Your task to perform on an android device: Show me productivity apps on the Play Store Image 0: 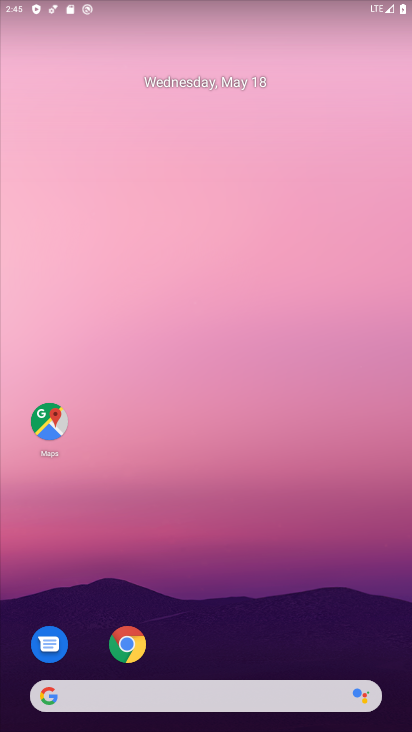
Step 0: drag from (153, 670) to (265, 225)
Your task to perform on an android device: Show me productivity apps on the Play Store Image 1: 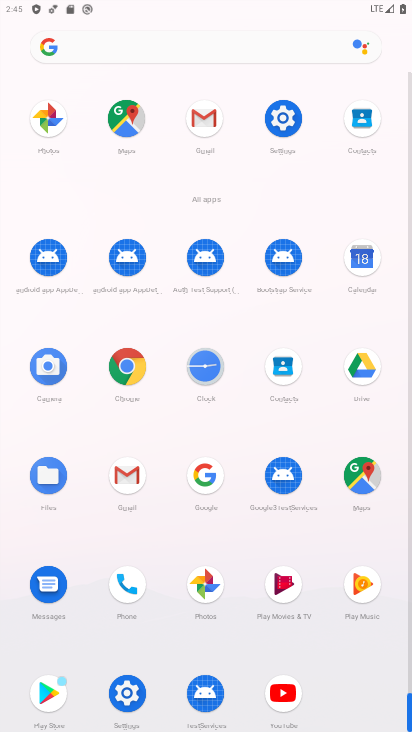
Step 1: click (58, 695)
Your task to perform on an android device: Show me productivity apps on the Play Store Image 2: 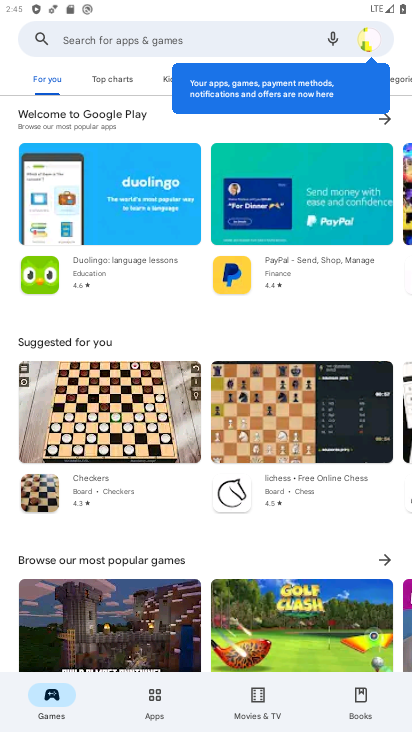
Step 2: click (153, 691)
Your task to perform on an android device: Show me productivity apps on the Play Store Image 3: 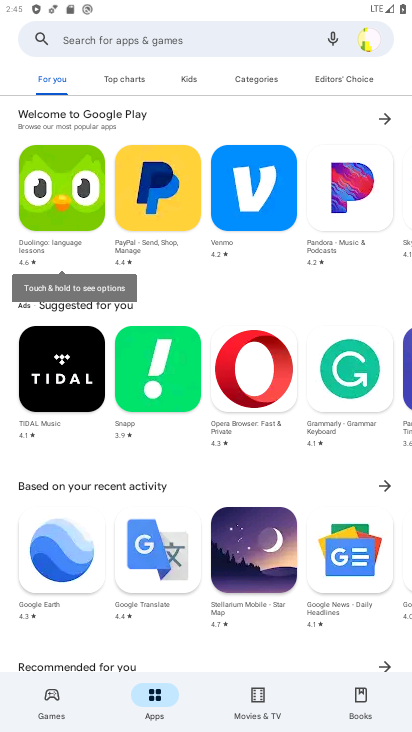
Step 3: task complete